Your task to perform on an android device: Search for the new Nike Air Max 270 on Nike.com Image 0: 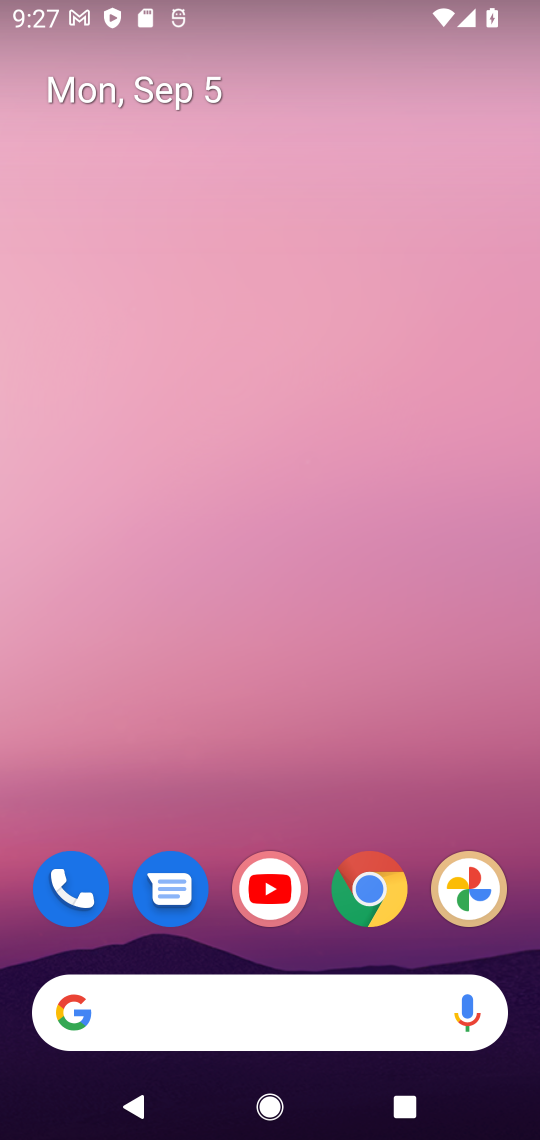
Step 0: click (306, 316)
Your task to perform on an android device: Search for the new Nike Air Max 270 on Nike.com Image 1: 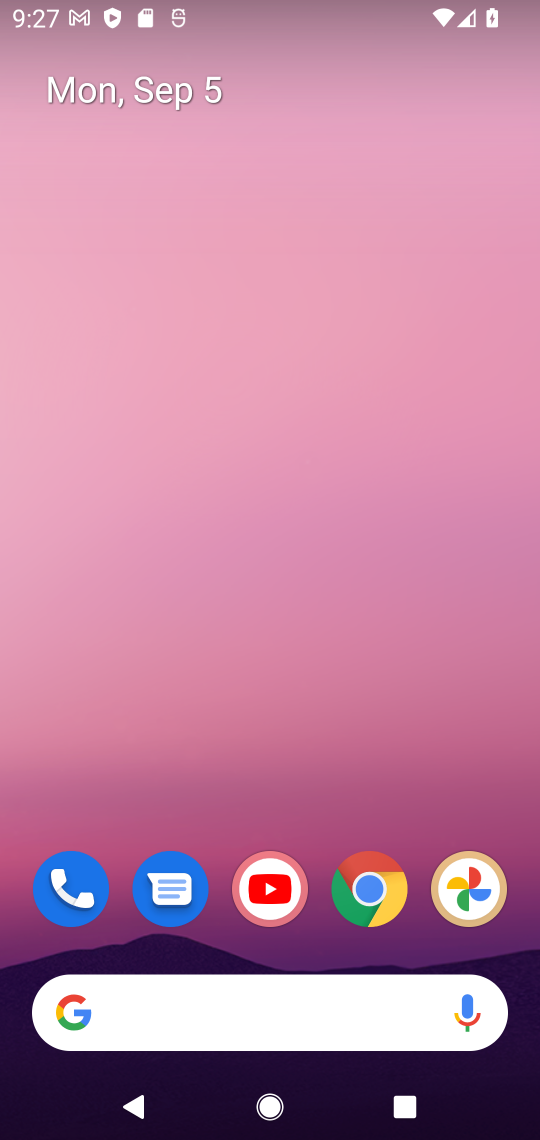
Step 1: click (229, 1024)
Your task to perform on an android device: Search for the new Nike Air Max 270 on Nike.com Image 2: 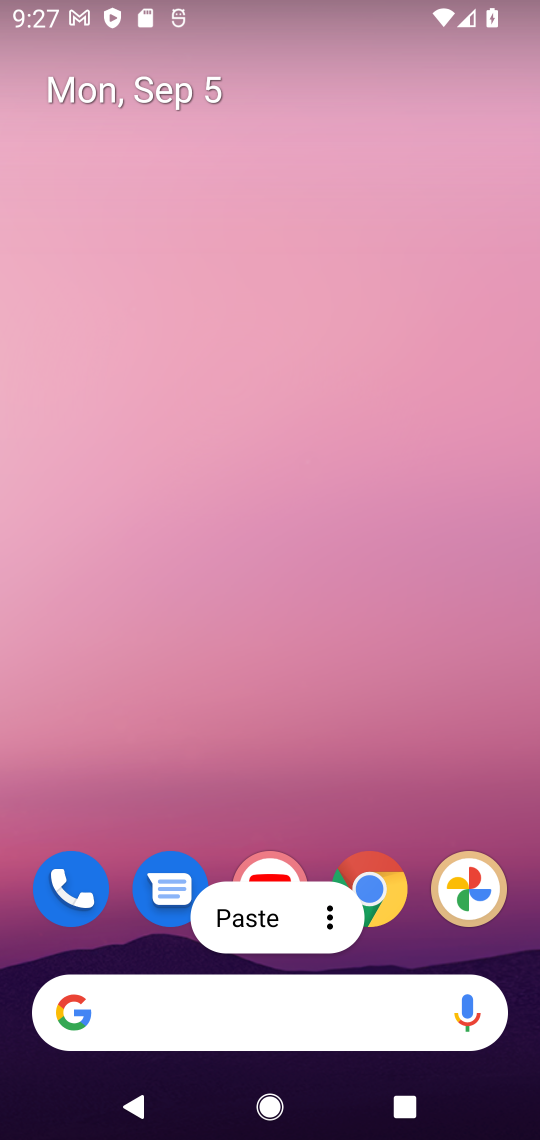
Step 2: click (265, 1024)
Your task to perform on an android device: Search for the new Nike Air Max 270 on Nike.com Image 3: 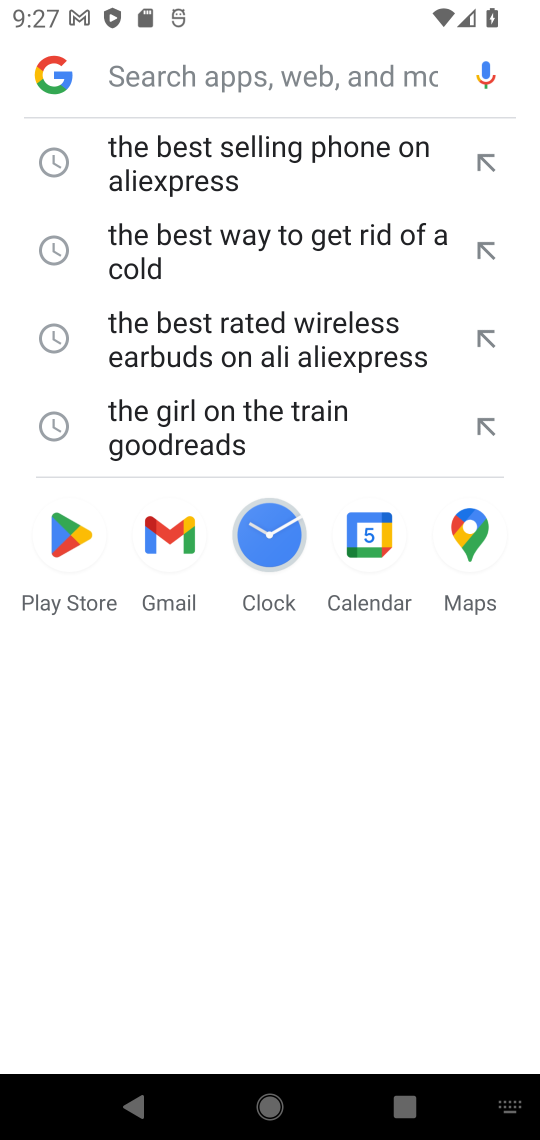
Step 3: type "the new Nike Air Max 270 on Nike.com"
Your task to perform on an android device: Search for the new Nike Air Max 270 on Nike.com Image 4: 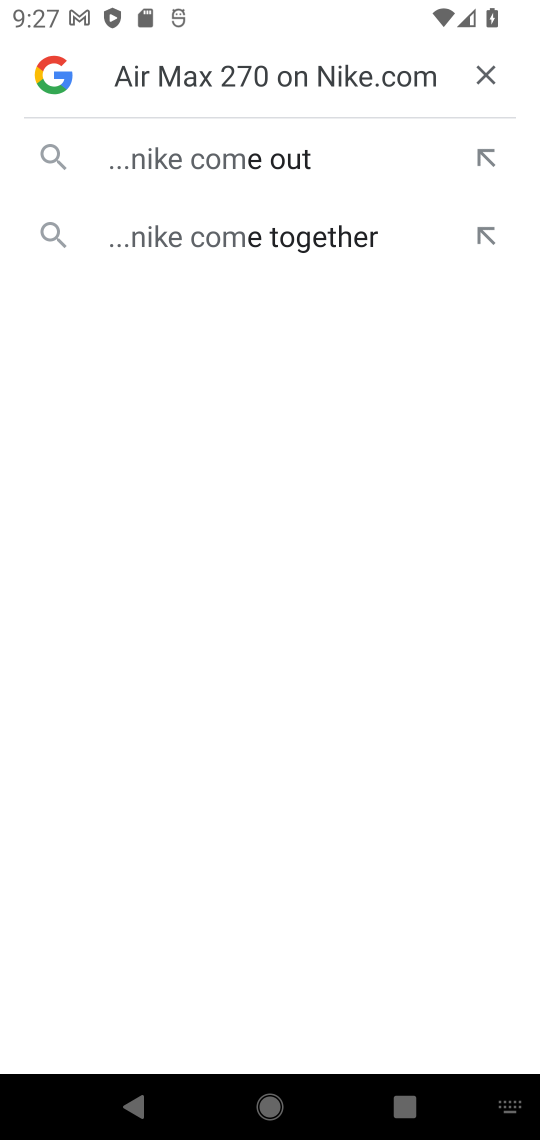
Step 4: click (243, 166)
Your task to perform on an android device: Search for the new Nike Air Max 270 on Nike.com Image 5: 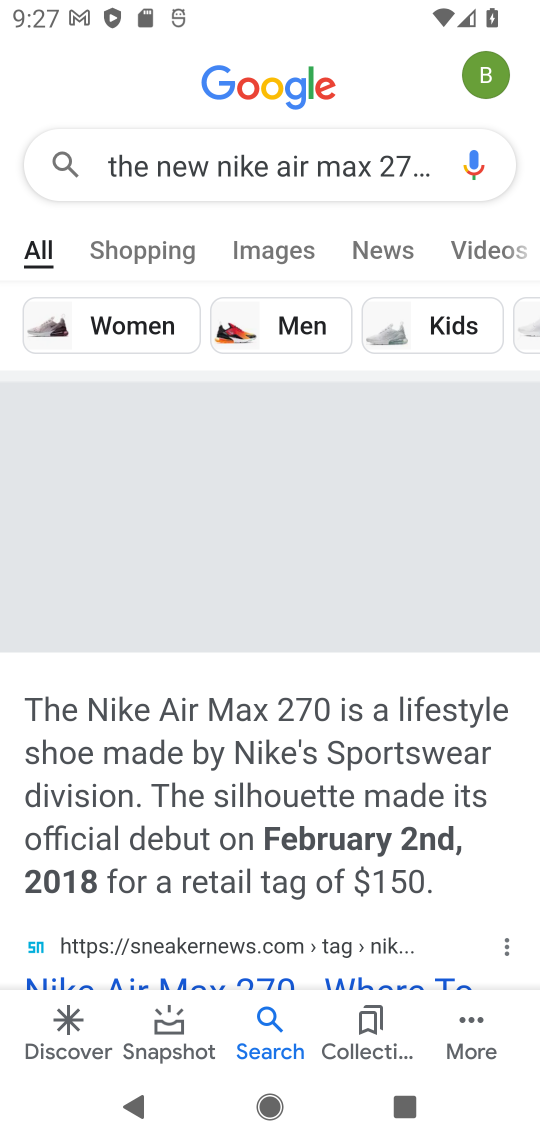
Step 5: click (402, 215)
Your task to perform on an android device: Search for the new Nike Air Max 270 on Nike.com Image 6: 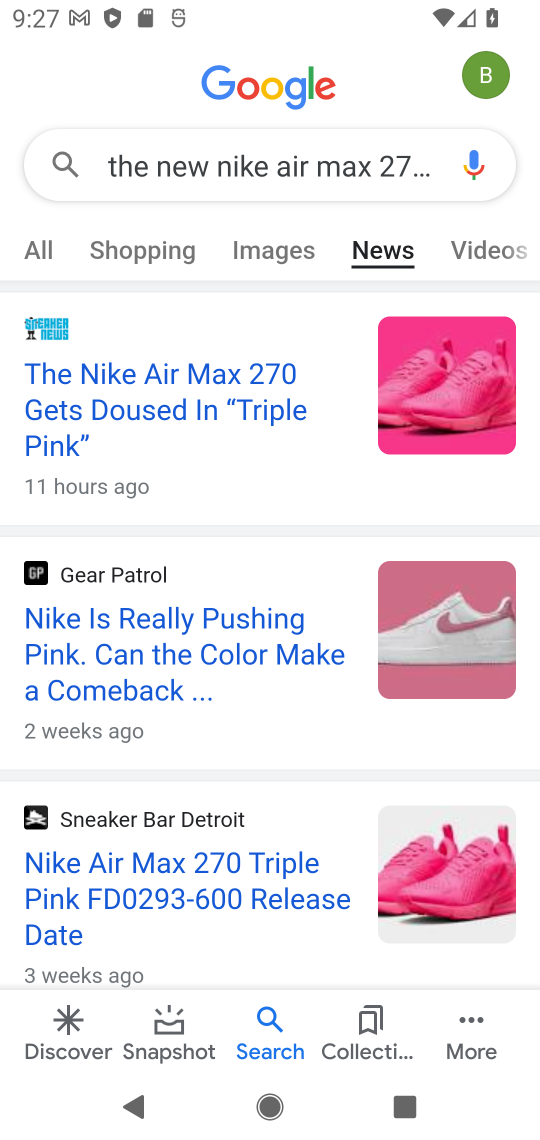
Step 6: task complete